Your task to perform on an android device: Search for sushi restaurants on Maps Image 0: 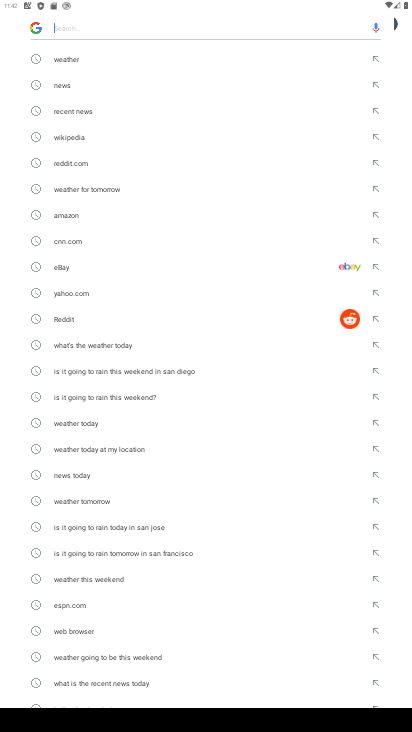
Step 0: press home button
Your task to perform on an android device: Search for sushi restaurants on Maps Image 1: 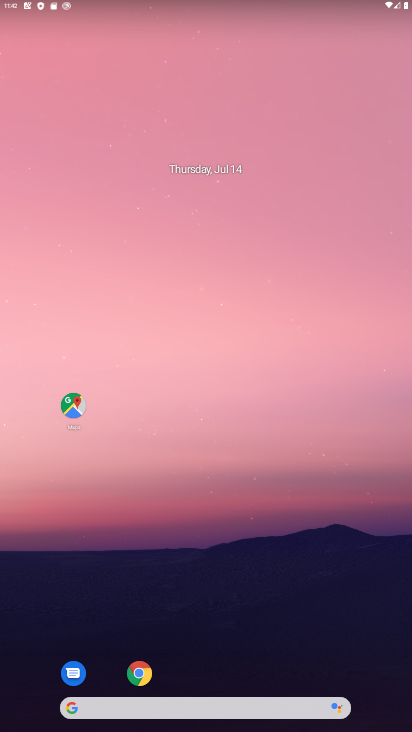
Step 1: click (75, 399)
Your task to perform on an android device: Search for sushi restaurants on Maps Image 2: 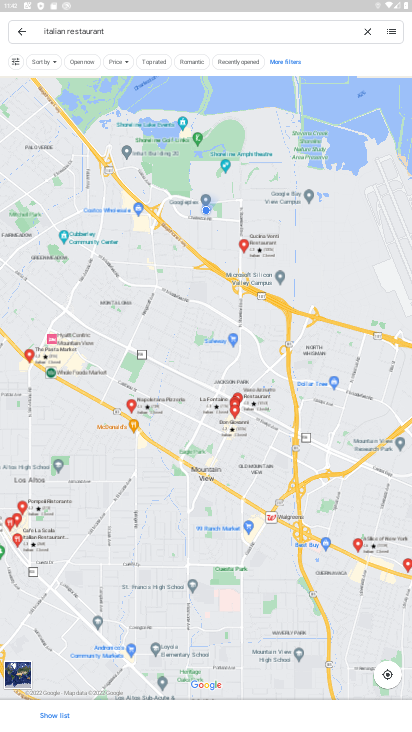
Step 2: click (212, 23)
Your task to perform on an android device: Search for sushi restaurants on Maps Image 3: 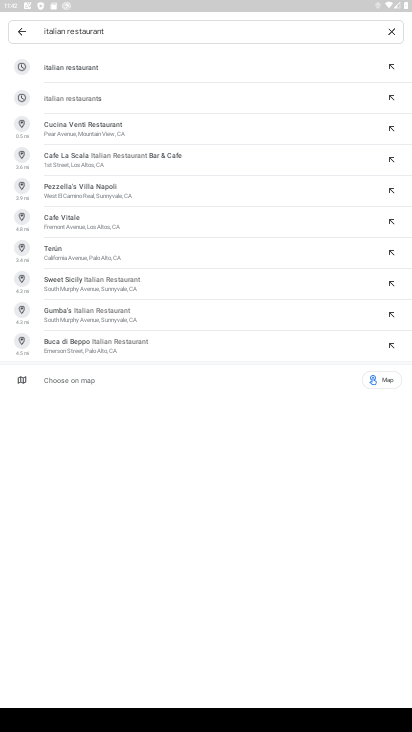
Step 3: click (394, 32)
Your task to perform on an android device: Search for sushi restaurants on Maps Image 4: 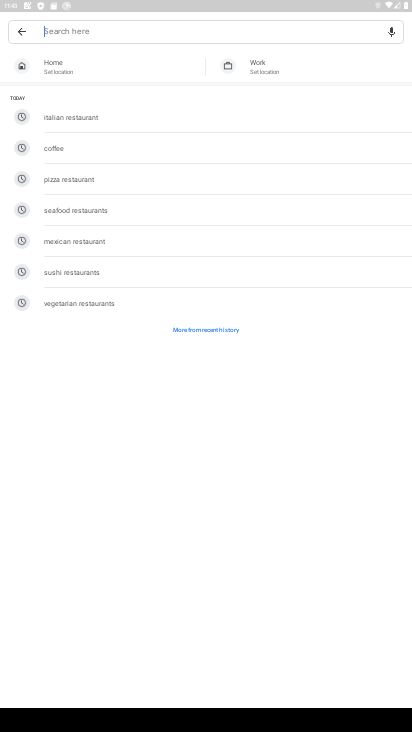
Step 4: click (102, 271)
Your task to perform on an android device: Search for sushi restaurants on Maps Image 5: 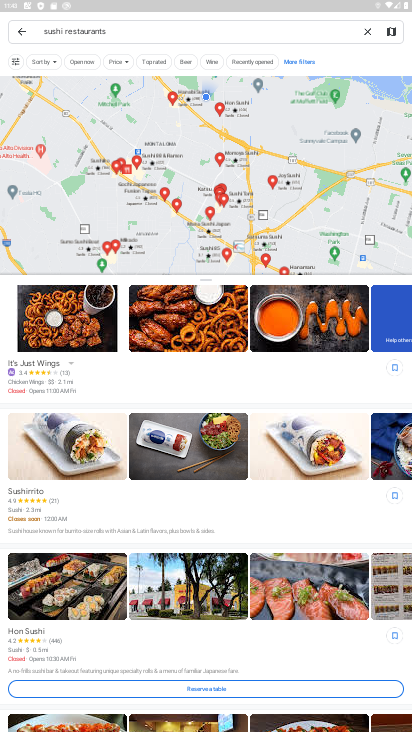
Step 5: task complete